Your task to perform on an android device: turn notification dots on Image 0: 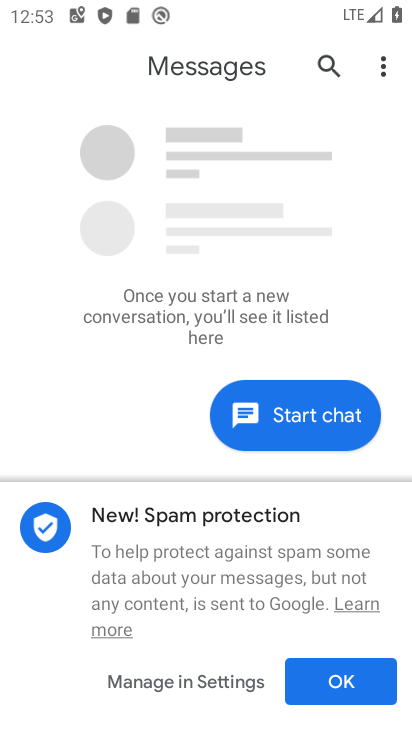
Step 0: press home button
Your task to perform on an android device: turn notification dots on Image 1: 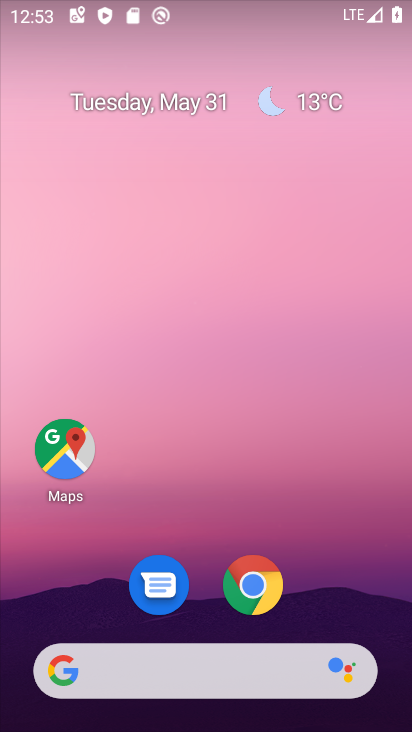
Step 1: drag from (220, 519) to (223, 32)
Your task to perform on an android device: turn notification dots on Image 2: 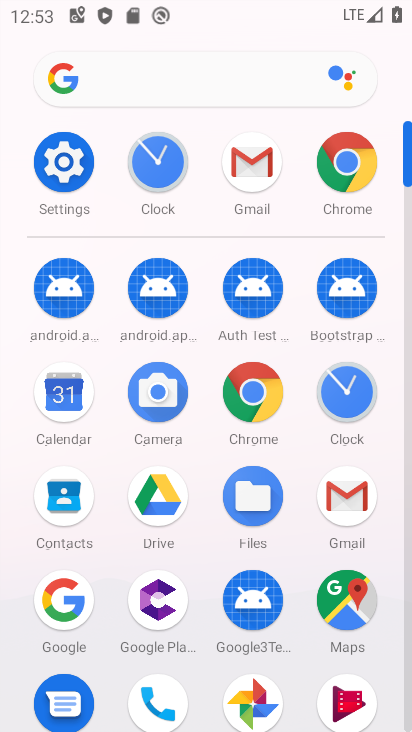
Step 2: click (73, 172)
Your task to perform on an android device: turn notification dots on Image 3: 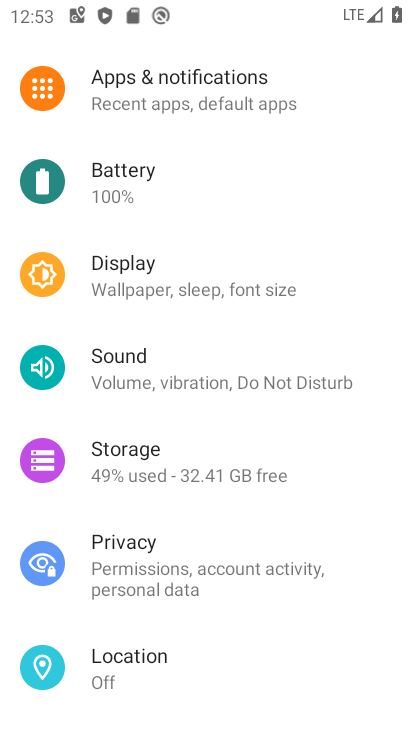
Step 3: click (220, 86)
Your task to perform on an android device: turn notification dots on Image 4: 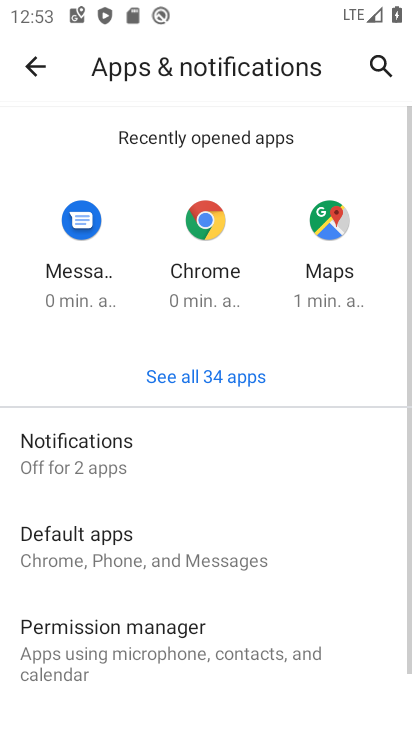
Step 4: drag from (216, 535) to (245, 234)
Your task to perform on an android device: turn notification dots on Image 5: 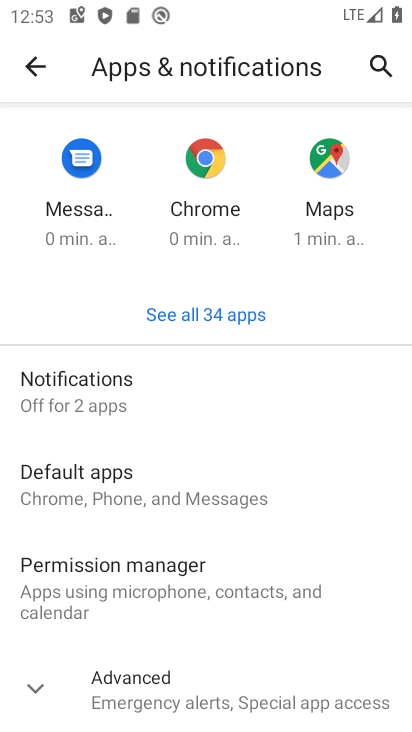
Step 5: click (33, 680)
Your task to perform on an android device: turn notification dots on Image 6: 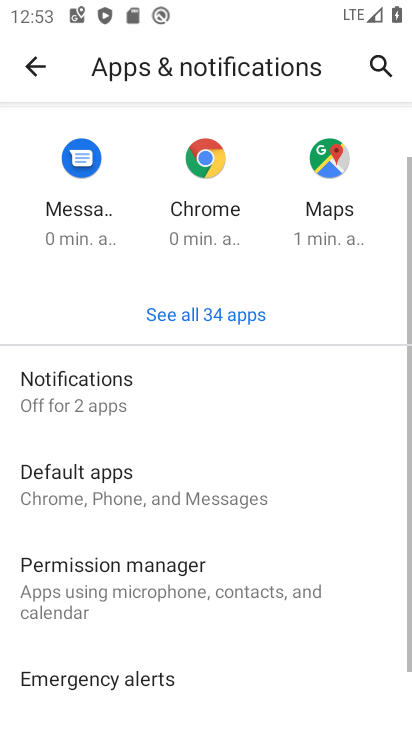
Step 6: drag from (238, 563) to (303, 228)
Your task to perform on an android device: turn notification dots on Image 7: 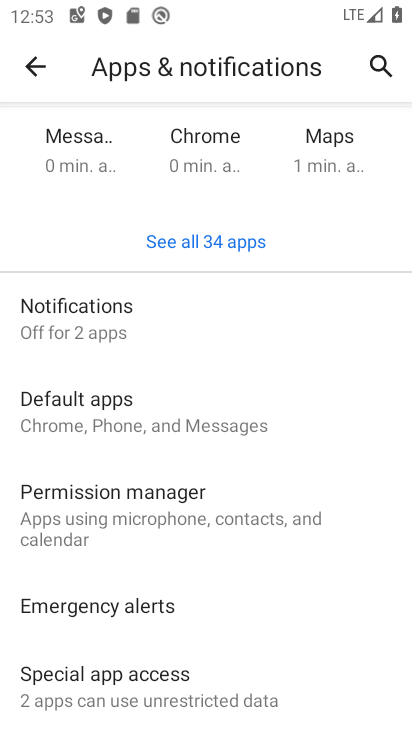
Step 7: click (223, 327)
Your task to perform on an android device: turn notification dots on Image 8: 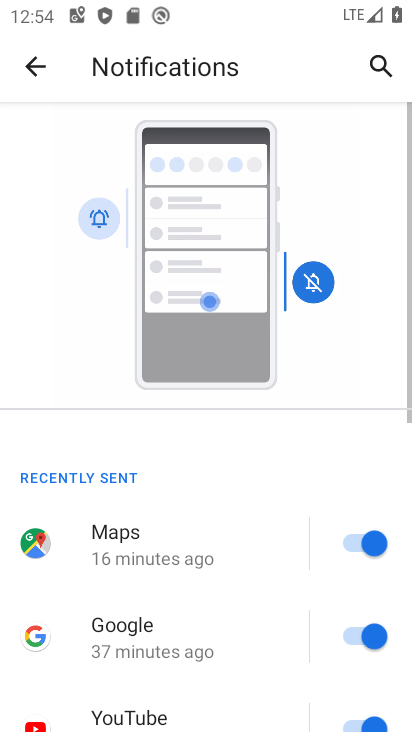
Step 8: drag from (217, 598) to (252, 115)
Your task to perform on an android device: turn notification dots on Image 9: 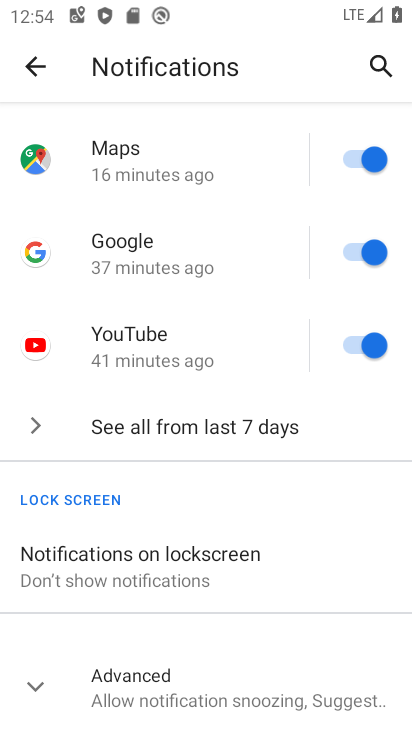
Step 9: click (27, 677)
Your task to perform on an android device: turn notification dots on Image 10: 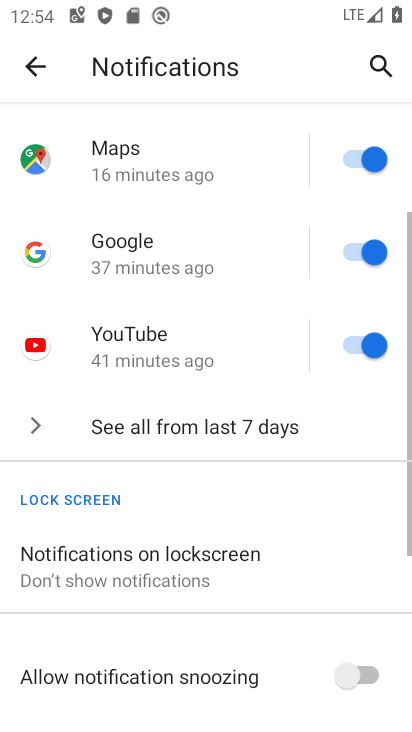
Step 10: task complete